Your task to perform on an android device: change the clock display to analog Image 0: 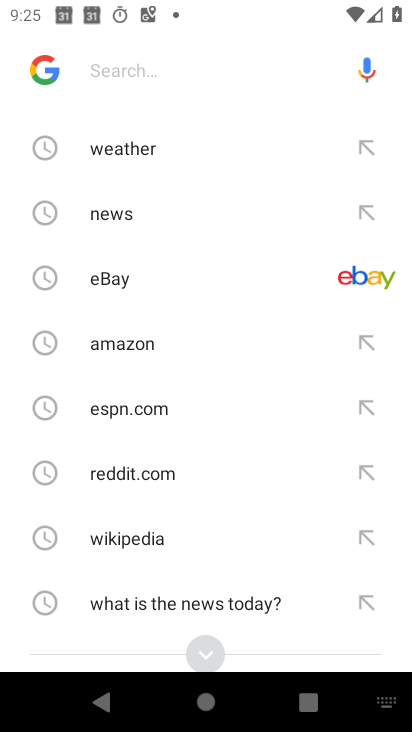
Step 0: press home button
Your task to perform on an android device: change the clock display to analog Image 1: 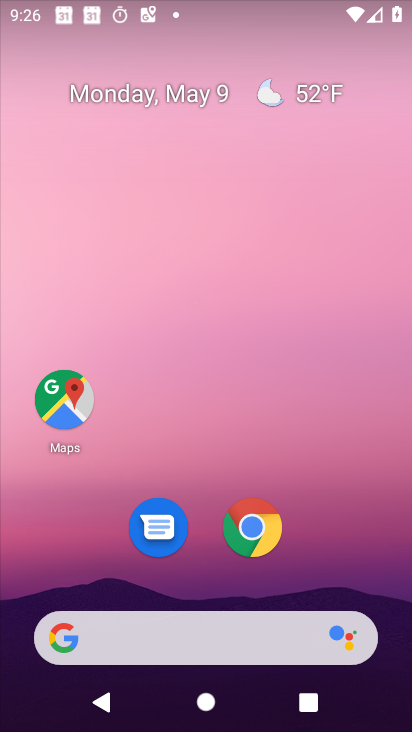
Step 1: drag from (356, 580) to (321, 222)
Your task to perform on an android device: change the clock display to analog Image 2: 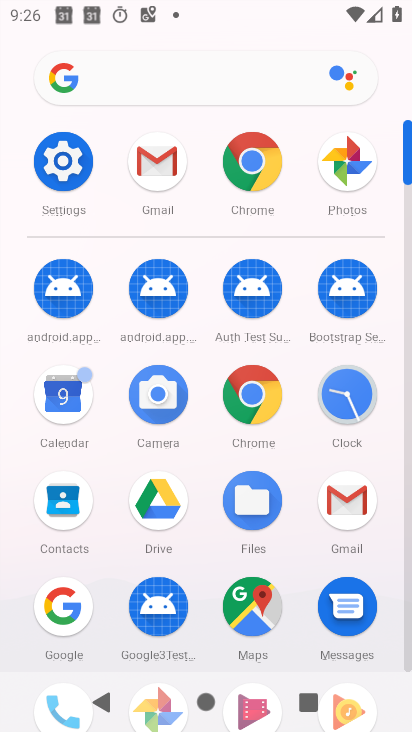
Step 2: click (347, 400)
Your task to perform on an android device: change the clock display to analog Image 3: 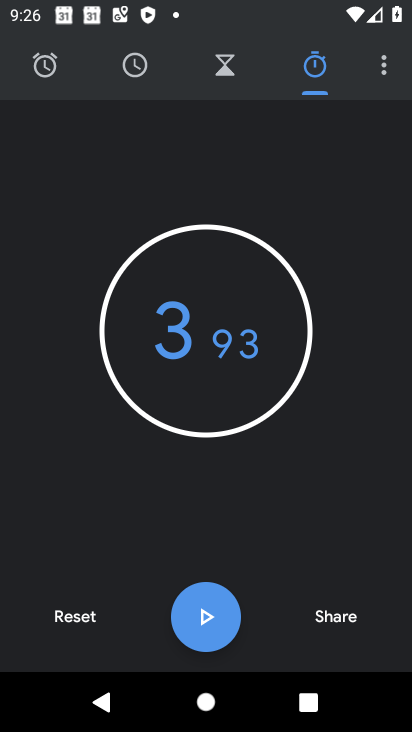
Step 3: click (391, 70)
Your task to perform on an android device: change the clock display to analog Image 4: 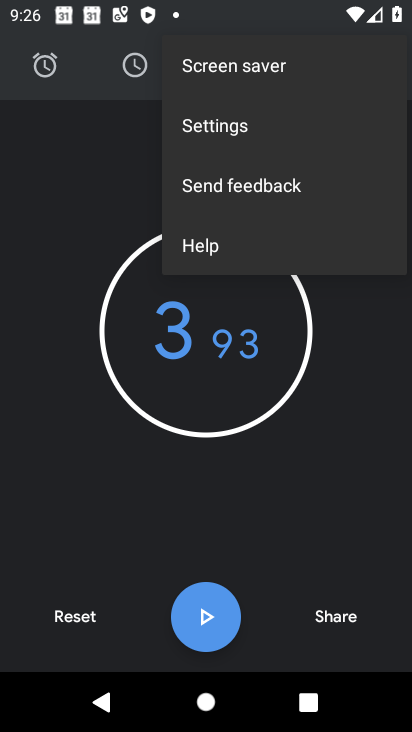
Step 4: click (261, 127)
Your task to perform on an android device: change the clock display to analog Image 5: 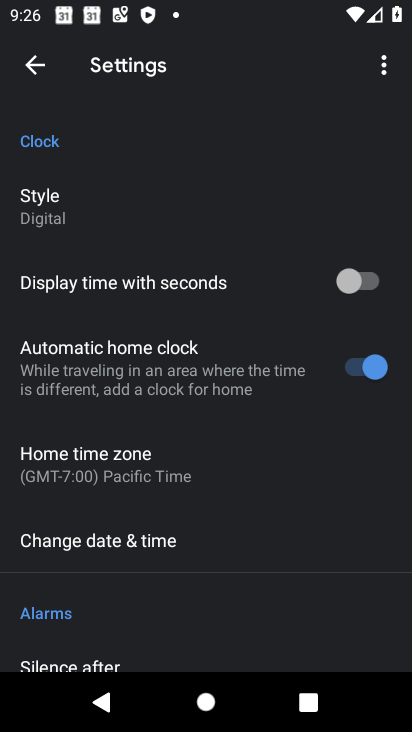
Step 5: click (140, 188)
Your task to perform on an android device: change the clock display to analog Image 6: 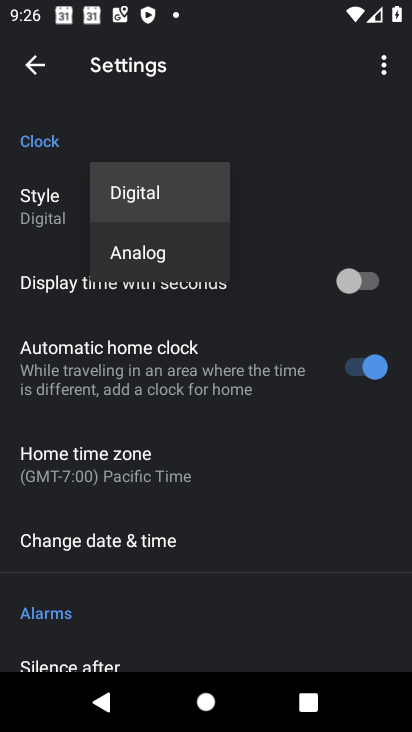
Step 6: click (177, 254)
Your task to perform on an android device: change the clock display to analog Image 7: 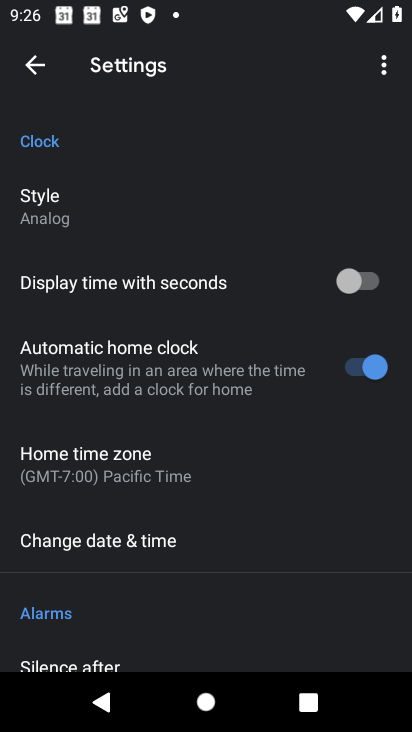
Step 7: task complete